Your task to perform on an android device: turn on showing notifications on the lock screen Image 0: 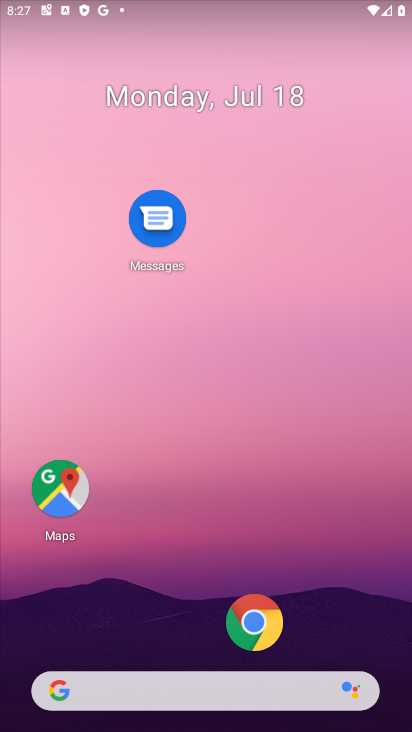
Step 0: drag from (271, 673) to (271, 196)
Your task to perform on an android device: turn on showing notifications on the lock screen Image 1: 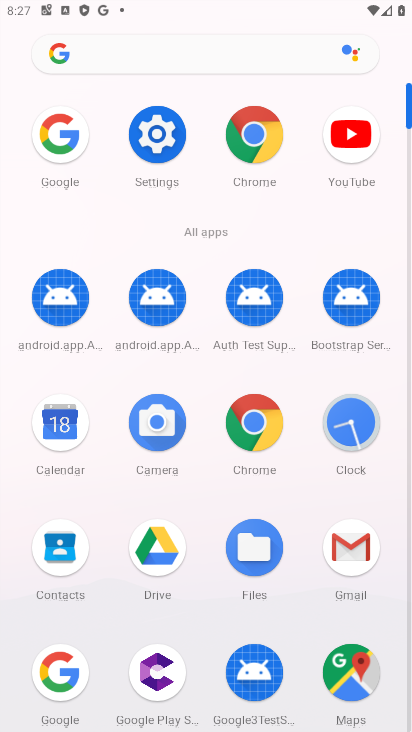
Step 1: drag from (243, 548) to (272, 80)
Your task to perform on an android device: turn on showing notifications on the lock screen Image 2: 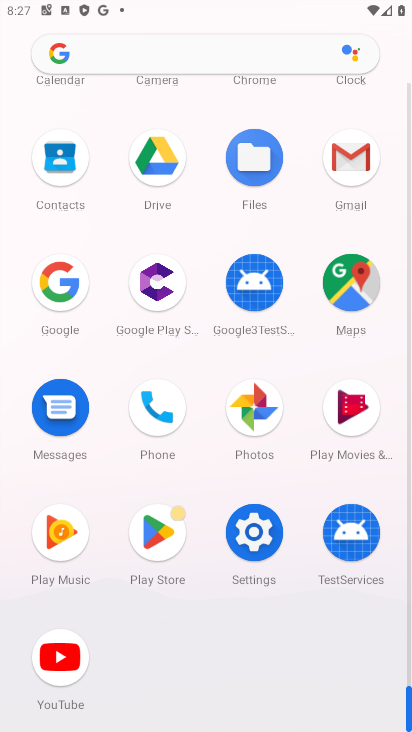
Step 2: click (249, 567)
Your task to perform on an android device: turn on showing notifications on the lock screen Image 3: 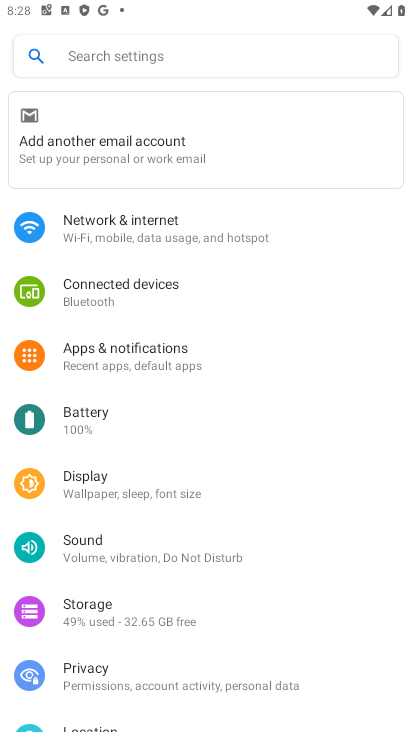
Step 3: click (170, 350)
Your task to perform on an android device: turn on showing notifications on the lock screen Image 4: 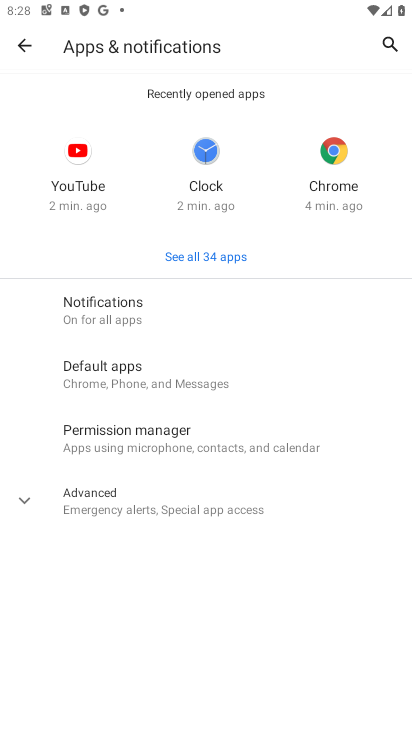
Step 4: click (161, 315)
Your task to perform on an android device: turn on showing notifications on the lock screen Image 5: 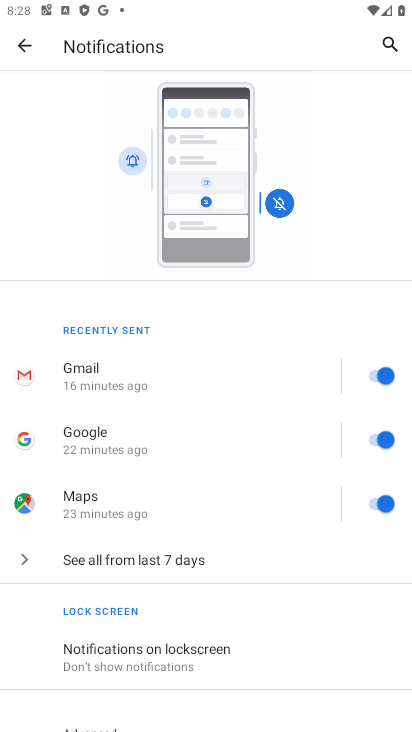
Step 5: drag from (199, 622) to (194, 380)
Your task to perform on an android device: turn on showing notifications on the lock screen Image 6: 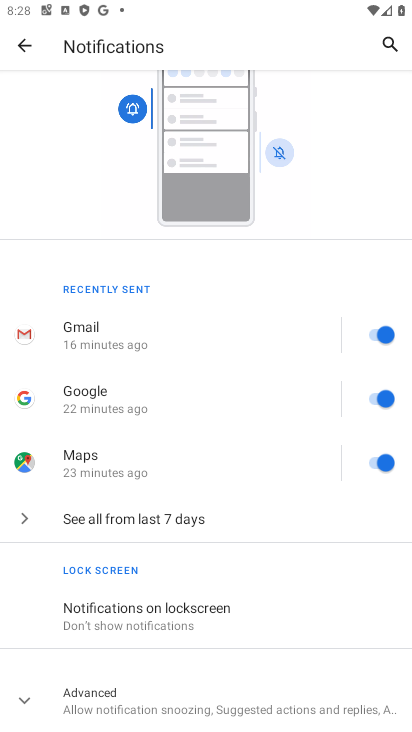
Step 6: click (160, 614)
Your task to perform on an android device: turn on showing notifications on the lock screen Image 7: 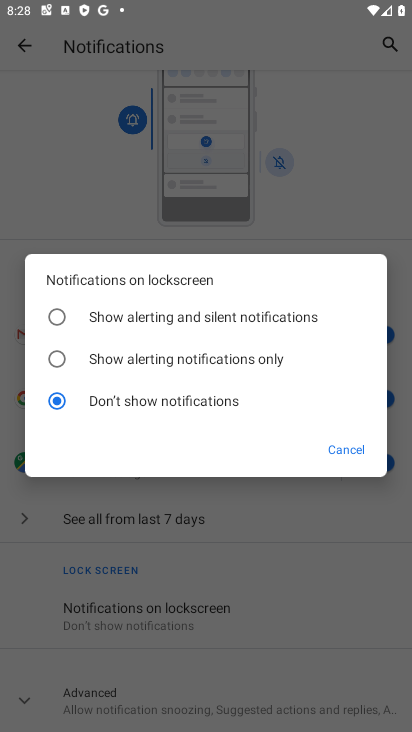
Step 7: click (71, 319)
Your task to perform on an android device: turn on showing notifications on the lock screen Image 8: 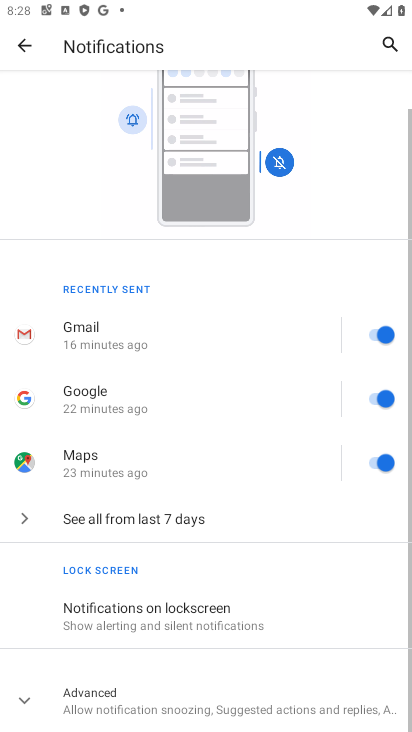
Step 8: task complete